Your task to perform on an android device: Search for logitech g pro on bestbuy.com, select the first entry, add it to the cart, then select checkout. Image 0: 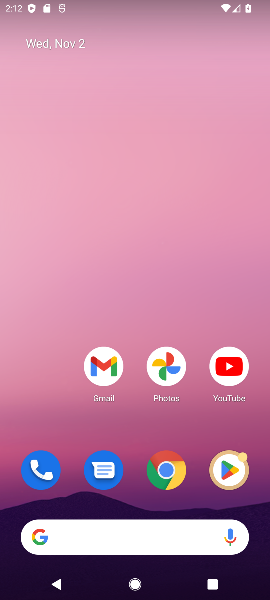
Step 0: drag from (70, 533) to (105, 296)
Your task to perform on an android device: Search for logitech g pro on bestbuy.com, select the first entry, add it to the cart, then select checkout. Image 1: 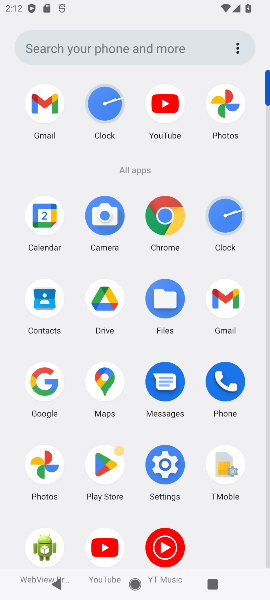
Step 1: click (45, 373)
Your task to perform on an android device: Search for logitech g pro on bestbuy.com, select the first entry, add it to the cart, then select checkout. Image 2: 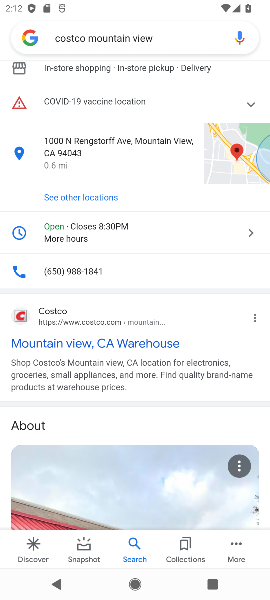
Step 2: click (133, 30)
Your task to perform on an android device: Search for logitech g pro on bestbuy.com, select the first entry, add it to the cart, then select checkout. Image 3: 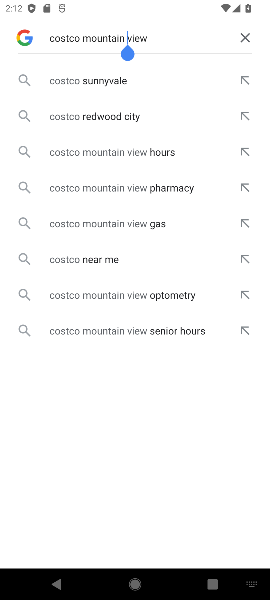
Step 3: click (241, 37)
Your task to perform on an android device: Search for logitech g pro on bestbuy.com, select the first entry, add it to the cart, then select checkout. Image 4: 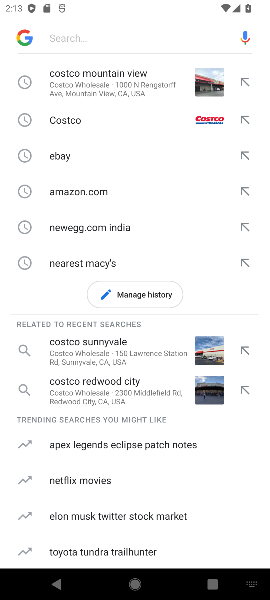
Step 4: click (113, 30)
Your task to perform on an android device: Search for logitech g pro on bestbuy.com, select the first entry, add it to the cart, then select checkout. Image 5: 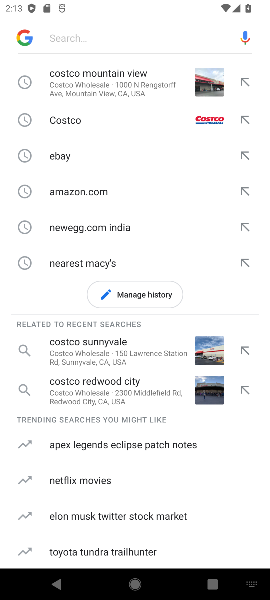
Step 5: click (140, 30)
Your task to perform on an android device: Search for logitech g pro on bestbuy.com, select the first entry, add it to the cart, then select checkout. Image 6: 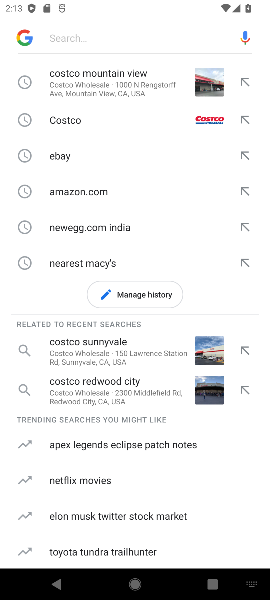
Step 6: type "bestbuy "
Your task to perform on an android device: Search for logitech g pro on bestbuy.com, select the first entry, add it to the cart, then select checkout. Image 7: 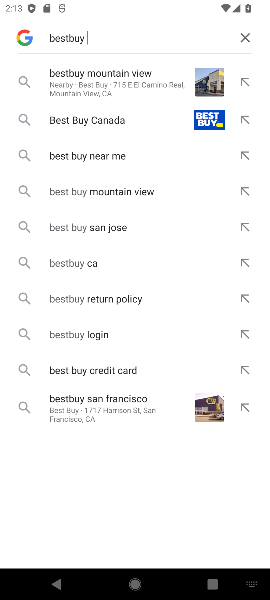
Step 7: click (85, 120)
Your task to perform on an android device: Search for logitech g pro on bestbuy.com, select the first entry, add it to the cart, then select checkout. Image 8: 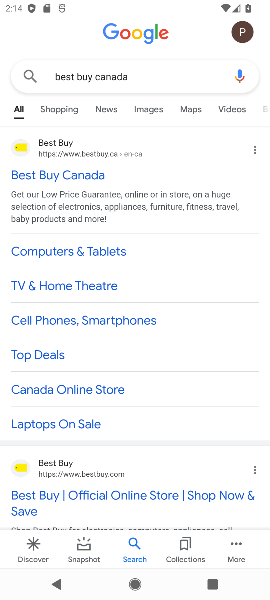
Step 8: click (72, 170)
Your task to perform on an android device: Search for logitech g pro on bestbuy.com, select the first entry, add it to the cart, then select checkout. Image 9: 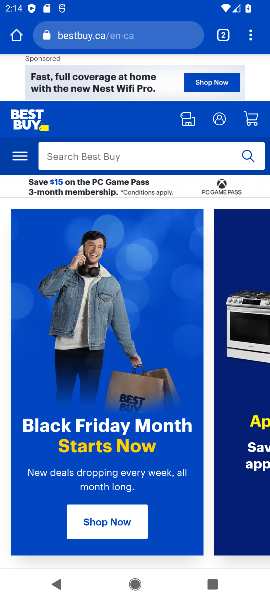
Step 9: click (149, 151)
Your task to perform on an android device: Search for logitech g pro on bestbuy.com, select the first entry, add it to the cart, then select checkout. Image 10: 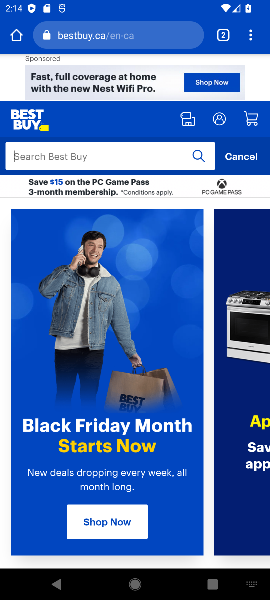
Step 10: type "logitech g pro o "
Your task to perform on an android device: Search for logitech g pro on bestbuy.com, select the first entry, add it to the cart, then select checkout. Image 11: 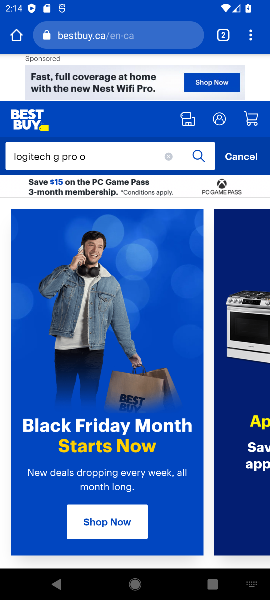
Step 11: click (197, 158)
Your task to perform on an android device: Search for logitech g pro on bestbuy.com, select the first entry, add it to the cart, then select checkout. Image 12: 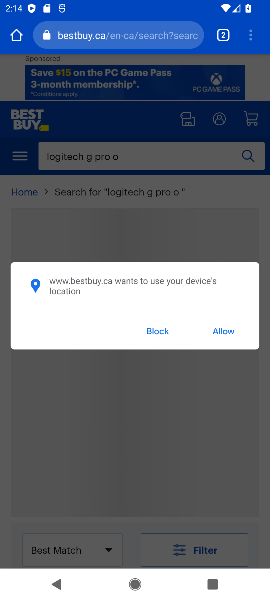
Step 12: click (232, 328)
Your task to perform on an android device: Search for logitech g pro on bestbuy.com, select the first entry, add it to the cart, then select checkout. Image 13: 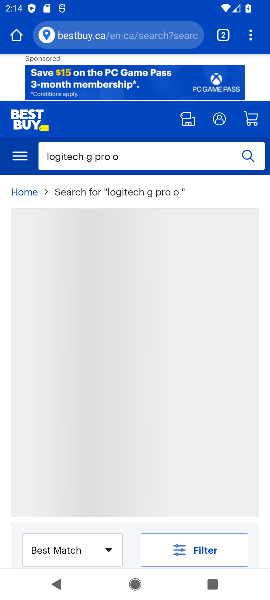
Step 13: drag from (169, 509) to (184, 158)
Your task to perform on an android device: Search for logitech g pro on bestbuy.com, select the first entry, add it to the cart, then select checkout. Image 14: 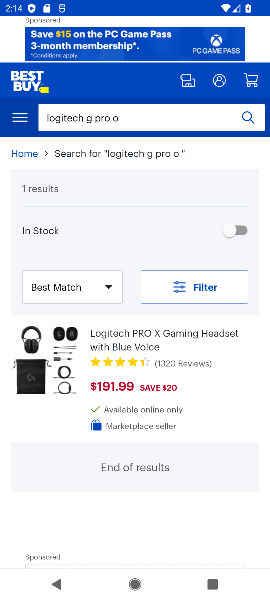
Step 14: drag from (191, 491) to (186, 223)
Your task to perform on an android device: Search for logitech g pro on bestbuy.com, select the first entry, add it to the cart, then select checkout. Image 15: 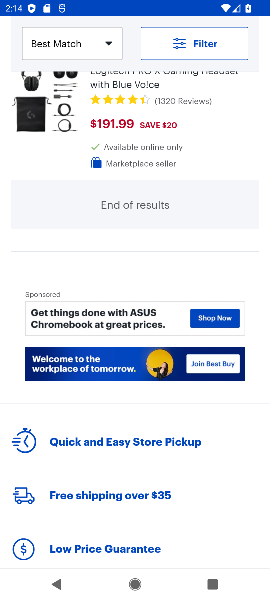
Step 15: drag from (192, 304) to (176, 525)
Your task to perform on an android device: Search for logitech g pro on bestbuy.com, select the first entry, add it to the cart, then select checkout. Image 16: 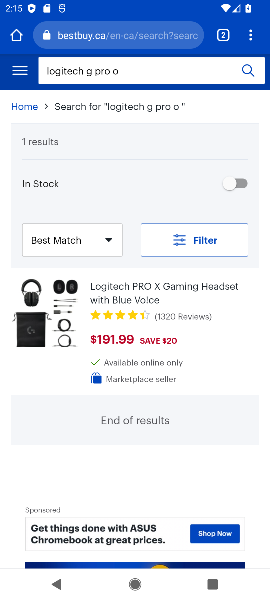
Step 16: click (131, 296)
Your task to perform on an android device: Search for logitech g pro on bestbuy.com, select the first entry, add it to the cart, then select checkout. Image 17: 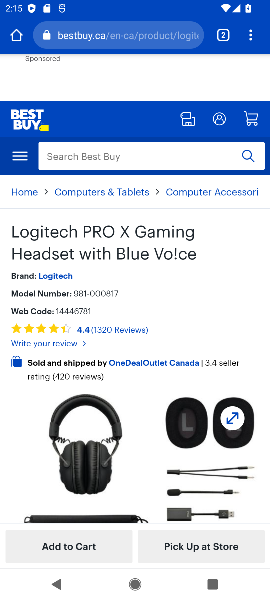
Step 17: click (92, 540)
Your task to perform on an android device: Search for logitech g pro on bestbuy.com, select the first entry, add it to the cart, then select checkout. Image 18: 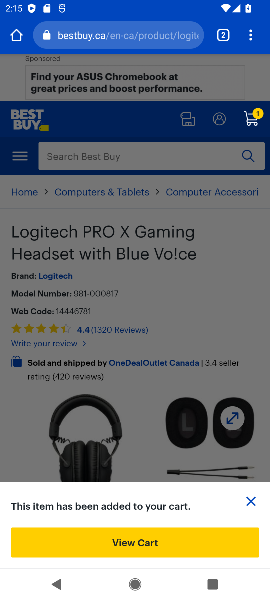
Step 18: task complete